Your task to perform on an android device: turn notification dots on Image 0: 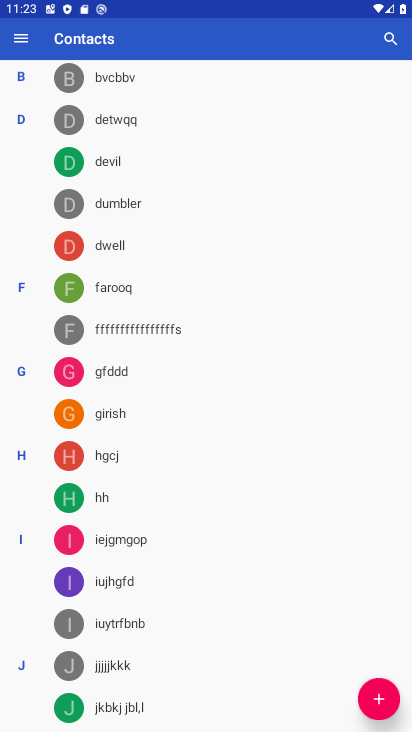
Step 0: press home button
Your task to perform on an android device: turn notification dots on Image 1: 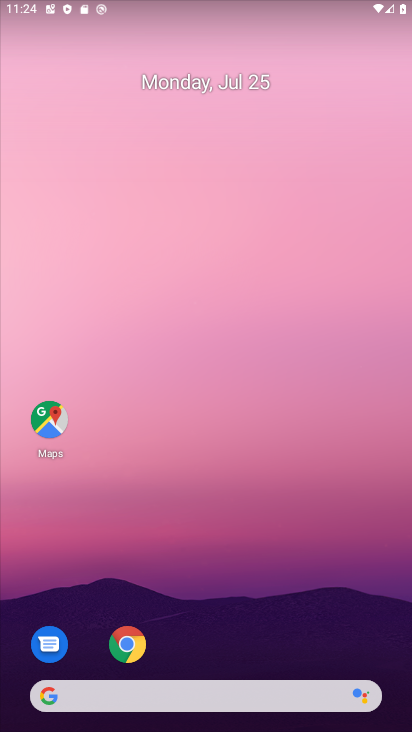
Step 1: drag from (228, 531) to (187, 8)
Your task to perform on an android device: turn notification dots on Image 2: 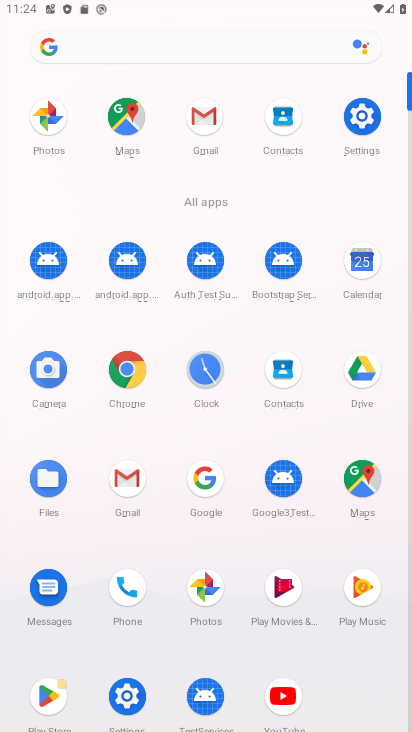
Step 2: click (356, 148)
Your task to perform on an android device: turn notification dots on Image 3: 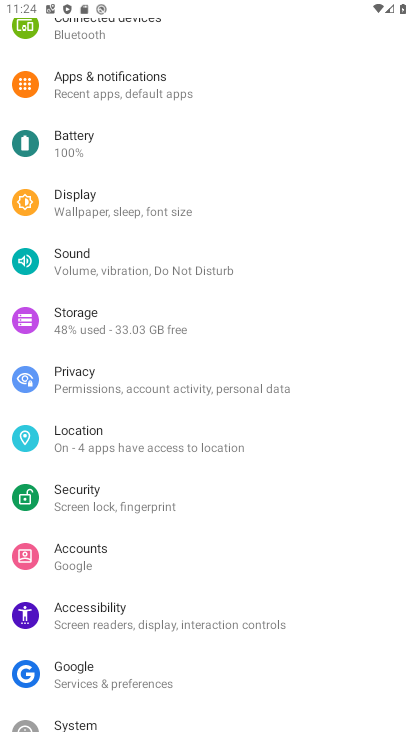
Step 3: drag from (129, 78) to (129, 28)
Your task to perform on an android device: turn notification dots on Image 4: 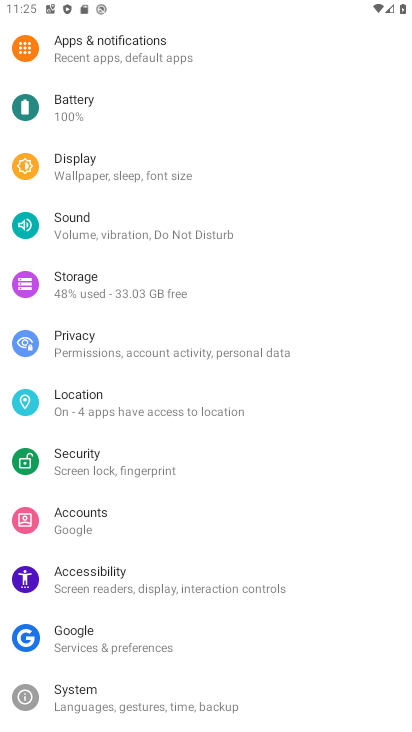
Step 4: click (111, 65)
Your task to perform on an android device: turn notification dots on Image 5: 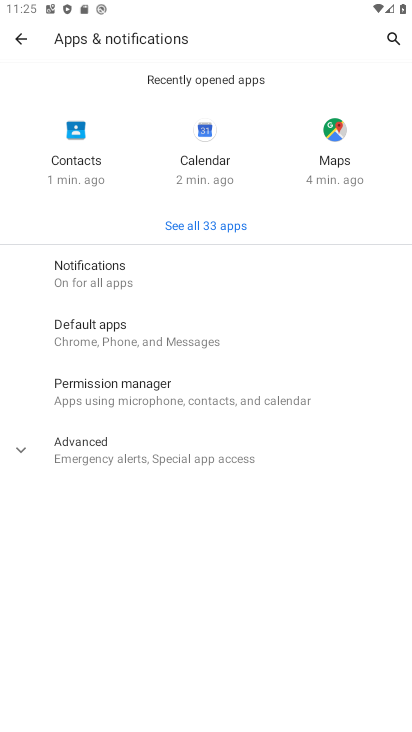
Step 5: click (176, 258)
Your task to perform on an android device: turn notification dots on Image 6: 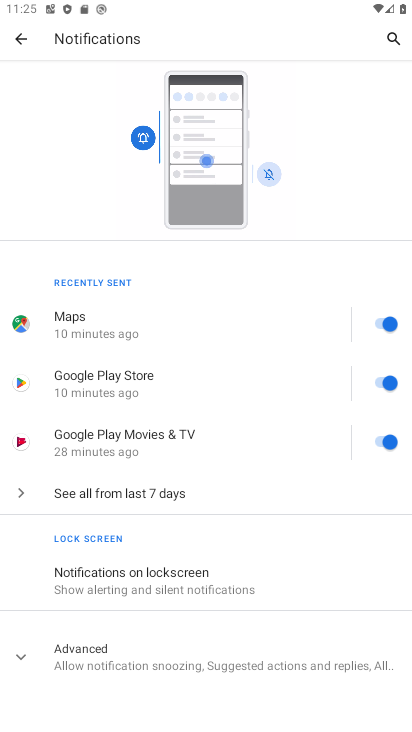
Step 6: drag from (100, 618) to (48, 323)
Your task to perform on an android device: turn notification dots on Image 7: 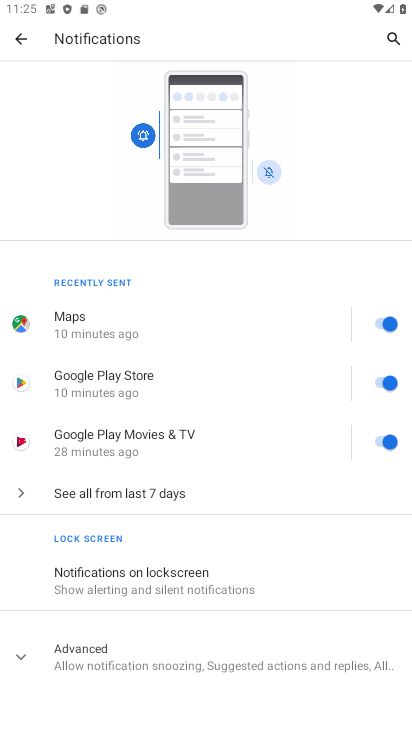
Step 7: drag from (89, 611) to (51, 440)
Your task to perform on an android device: turn notification dots on Image 8: 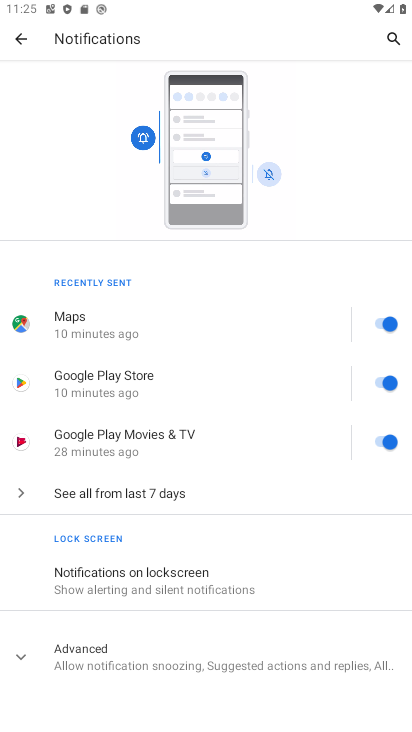
Step 8: click (122, 663)
Your task to perform on an android device: turn notification dots on Image 9: 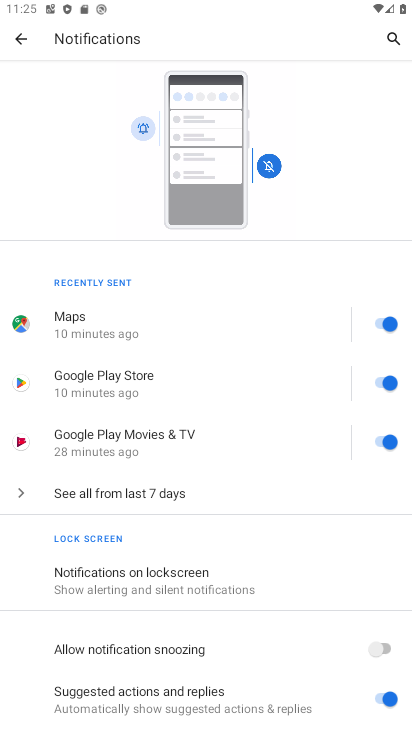
Step 9: task complete